Your task to perform on an android device: open chrome and create a bookmark for the current page Image 0: 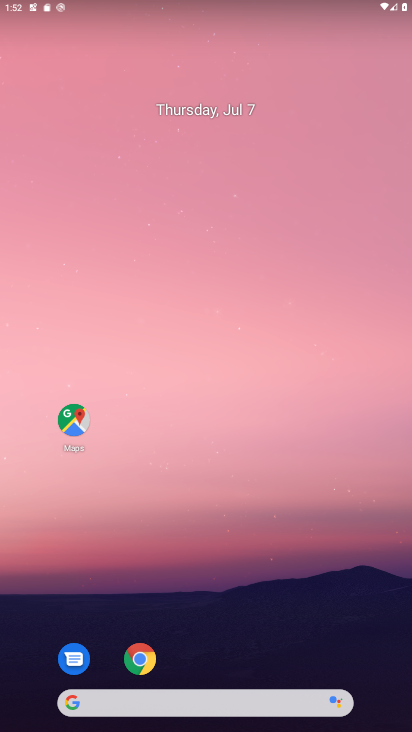
Step 0: click (287, 133)
Your task to perform on an android device: open chrome and create a bookmark for the current page Image 1: 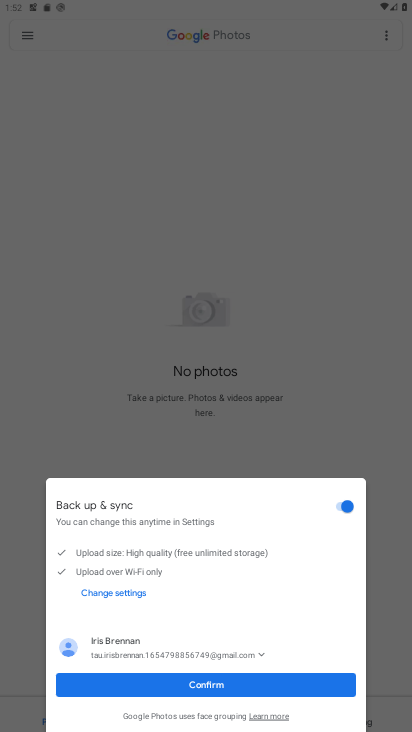
Step 1: press home button
Your task to perform on an android device: open chrome and create a bookmark for the current page Image 2: 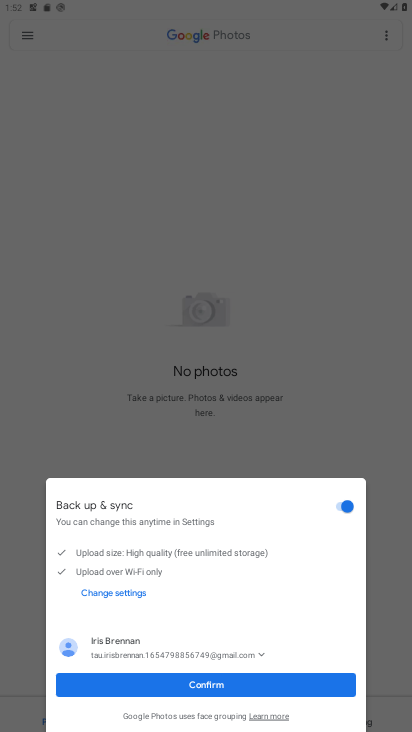
Step 2: press home button
Your task to perform on an android device: open chrome and create a bookmark for the current page Image 3: 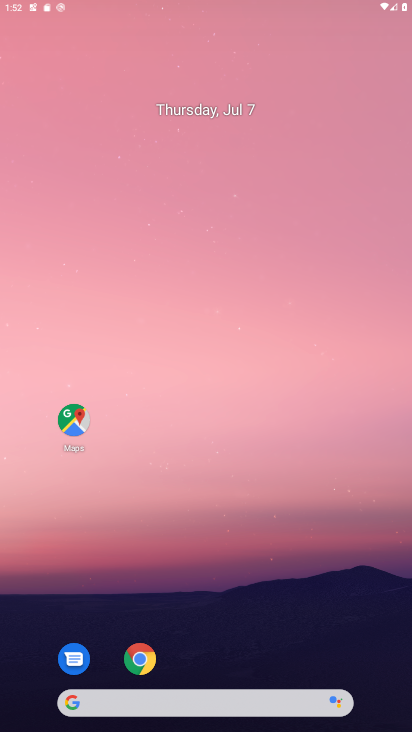
Step 3: drag from (206, 496) to (275, 105)
Your task to perform on an android device: open chrome and create a bookmark for the current page Image 4: 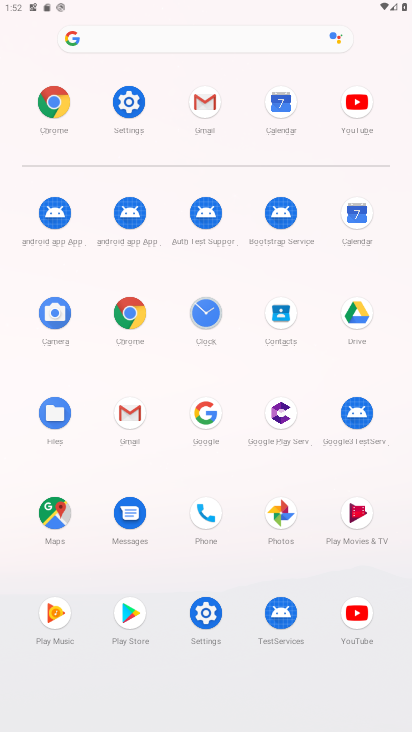
Step 4: click (131, 303)
Your task to perform on an android device: open chrome and create a bookmark for the current page Image 5: 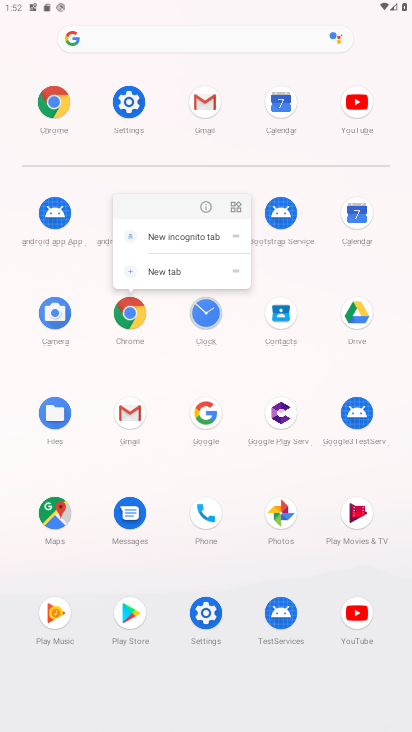
Step 5: click (202, 198)
Your task to perform on an android device: open chrome and create a bookmark for the current page Image 6: 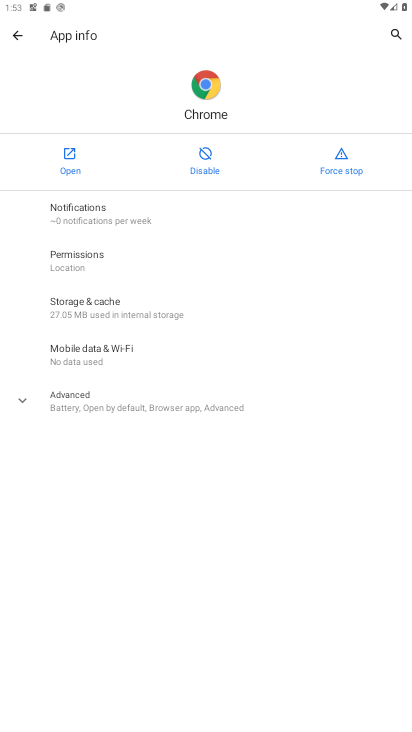
Step 6: click (69, 162)
Your task to perform on an android device: open chrome and create a bookmark for the current page Image 7: 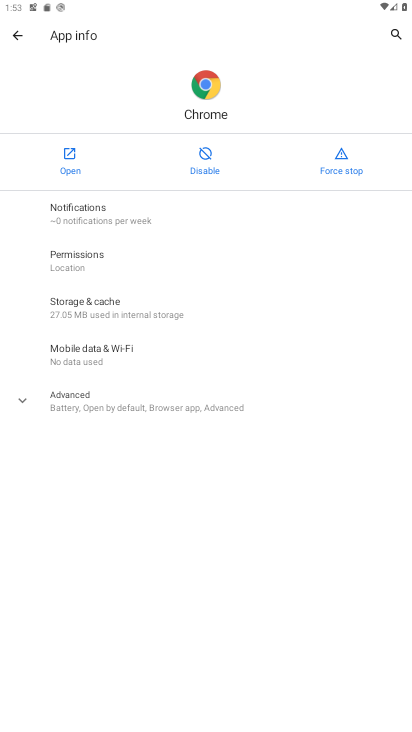
Step 7: click (69, 162)
Your task to perform on an android device: open chrome and create a bookmark for the current page Image 8: 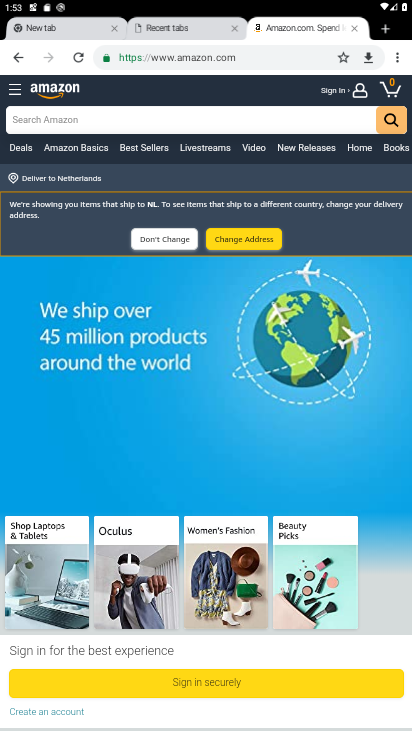
Step 8: click (339, 62)
Your task to perform on an android device: open chrome and create a bookmark for the current page Image 9: 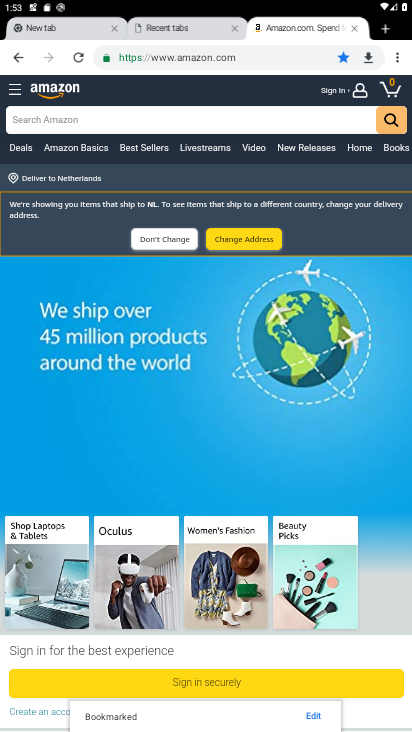
Step 9: task complete